Your task to perform on an android device: Open location settings Image 0: 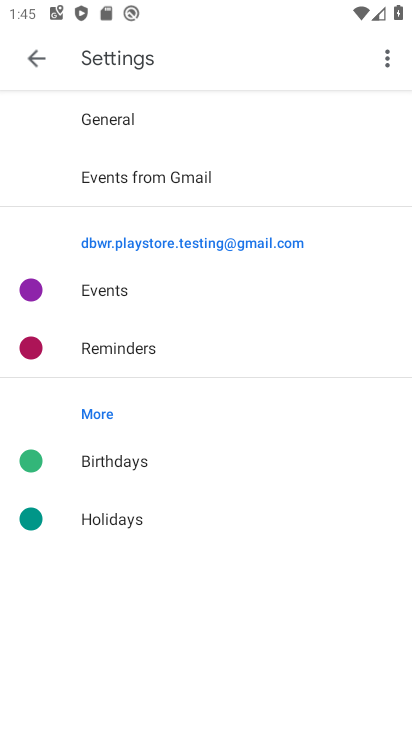
Step 0: press home button
Your task to perform on an android device: Open location settings Image 1: 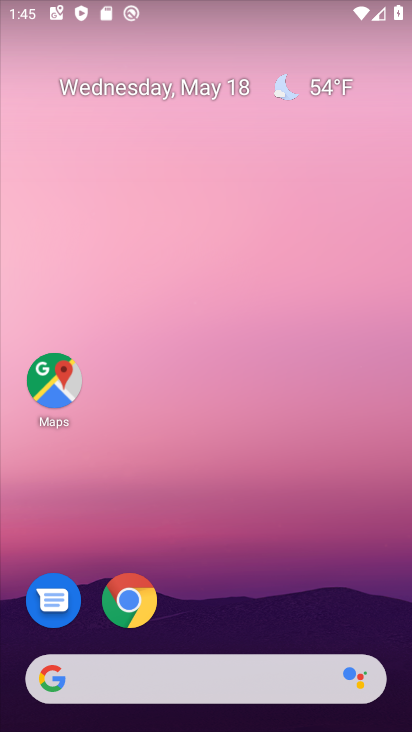
Step 1: drag from (176, 621) to (214, 245)
Your task to perform on an android device: Open location settings Image 2: 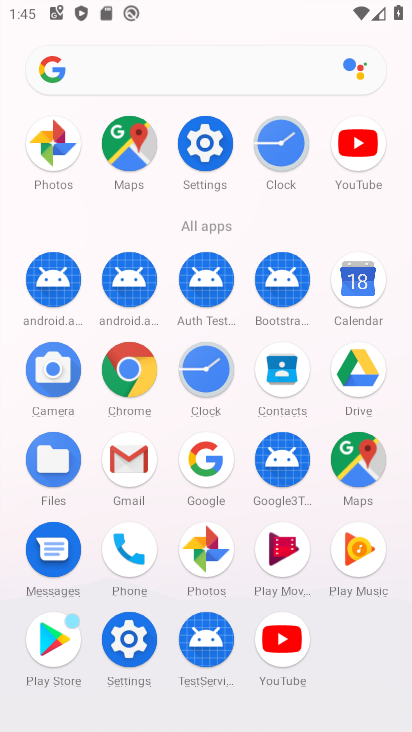
Step 2: click (225, 139)
Your task to perform on an android device: Open location settings Image 3: 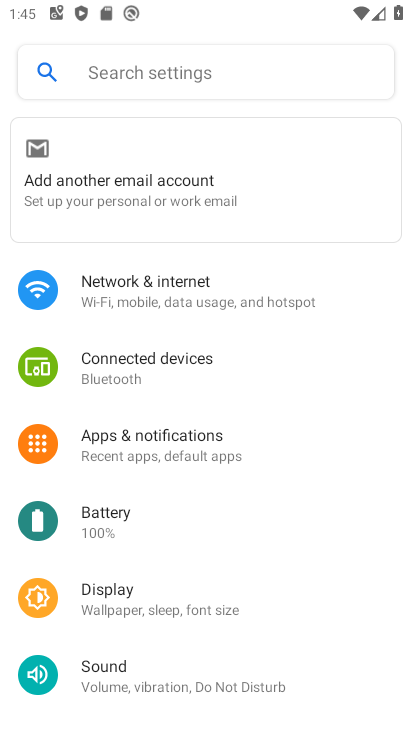
Step 3: drag from (126, 634) to (330, 15)
Your task to perform on an android device: Open location settings Image 4: 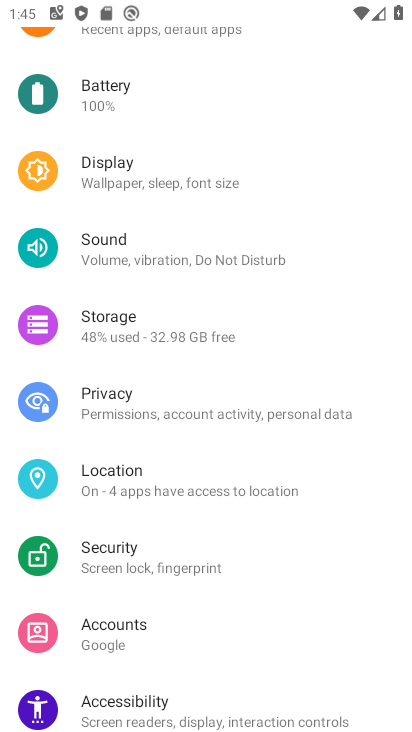
Step 4: click (112, 496)
Your task to perform on an android device: Open location settings Image 5: 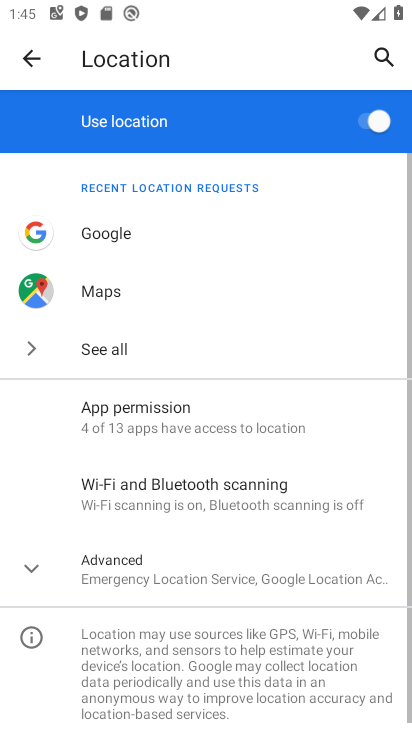
Step 5: task complete